Your task to perform on an android device: Open settings Image 0: 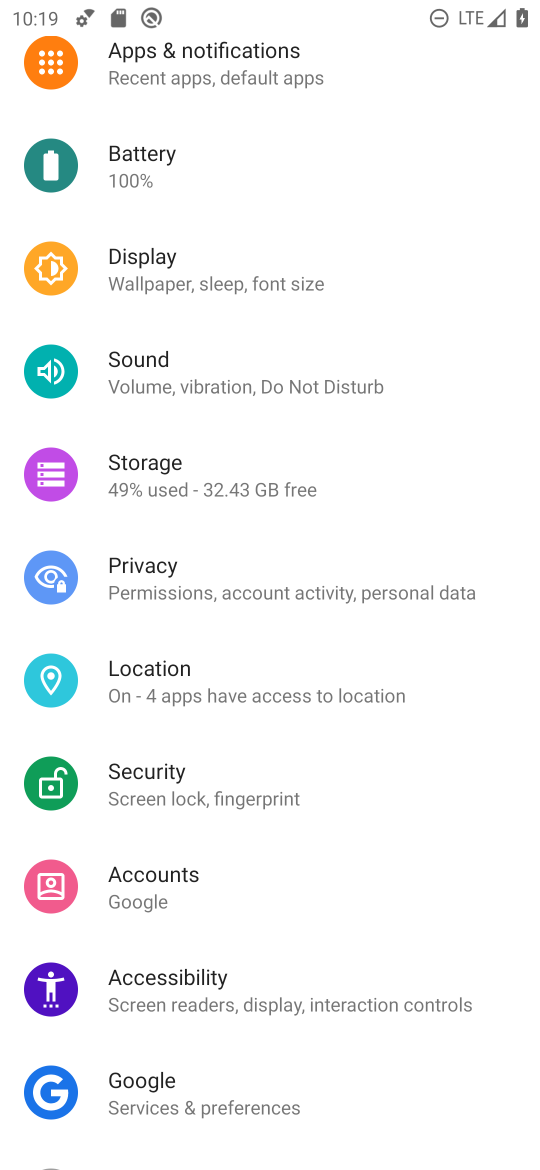
Step 0: click (326, 371)
Your task to perform on an android device: Open settings Image 1: 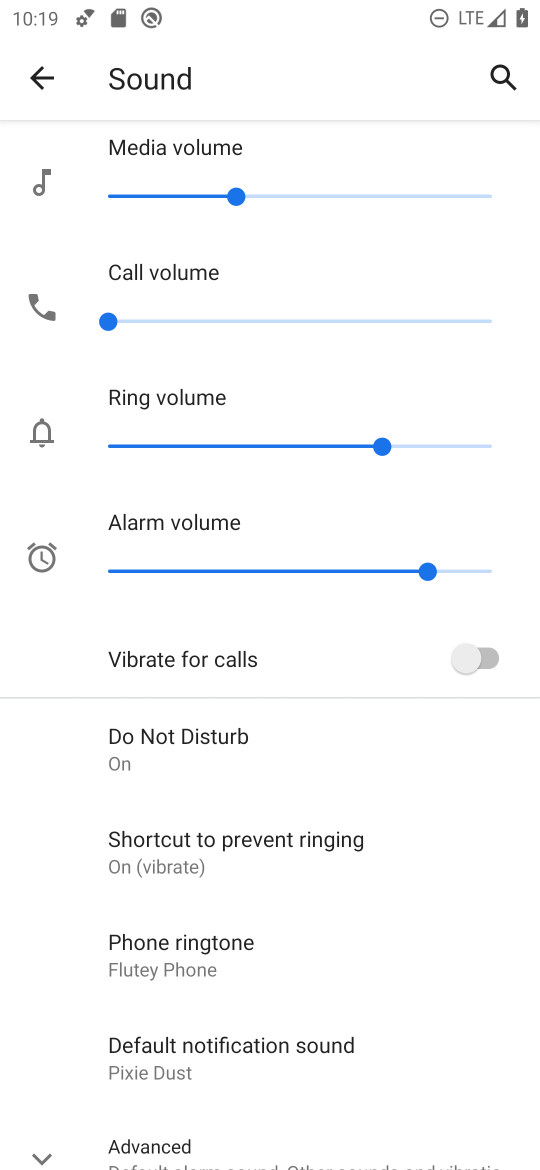
Step 1: press home button
Your task to perform on an android device: Open settings Image 2: 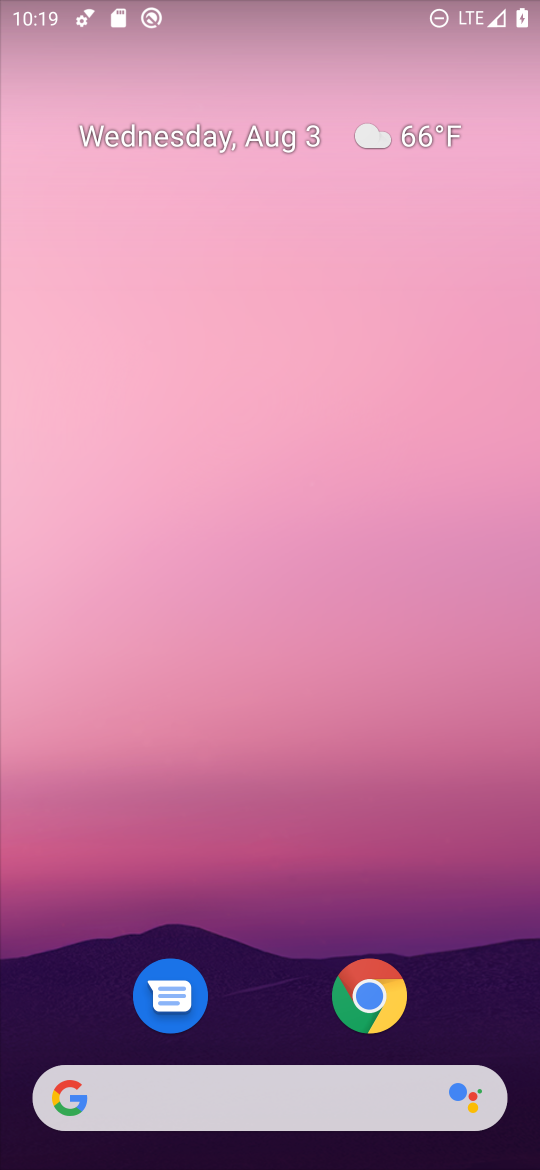
Step 2: drag from (300, 943) to (344, 8)
Your task to perform on an android device: Open settings Image 3: 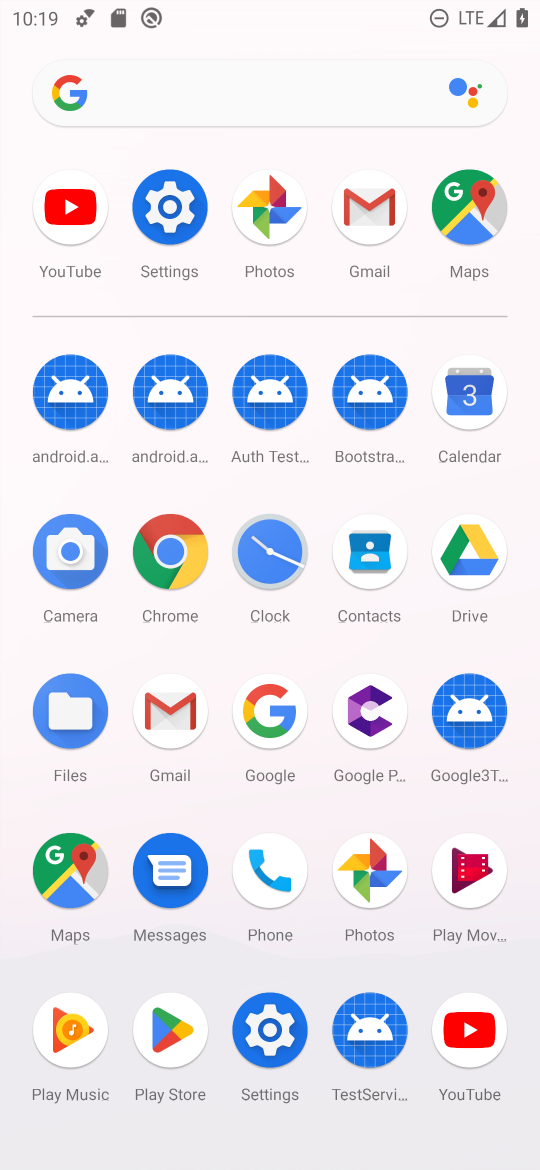
Step 3: click (181, 200)
Your task to perform on an android device: Open settings Image 4: 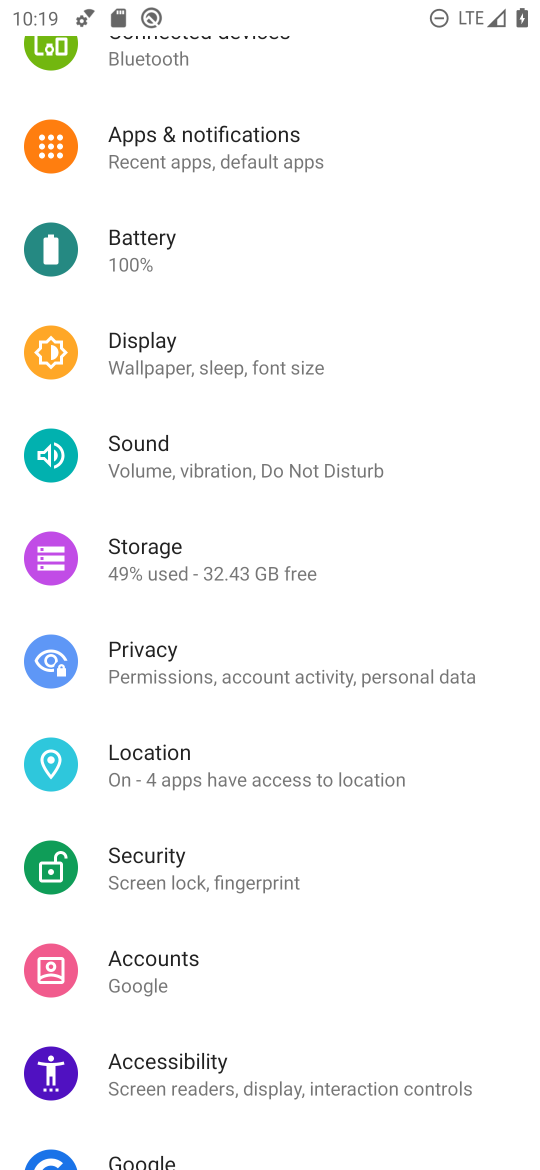
Step 4: task complete